Your task to perform on an android device: open app "PUBG MOBILE" Image 0: 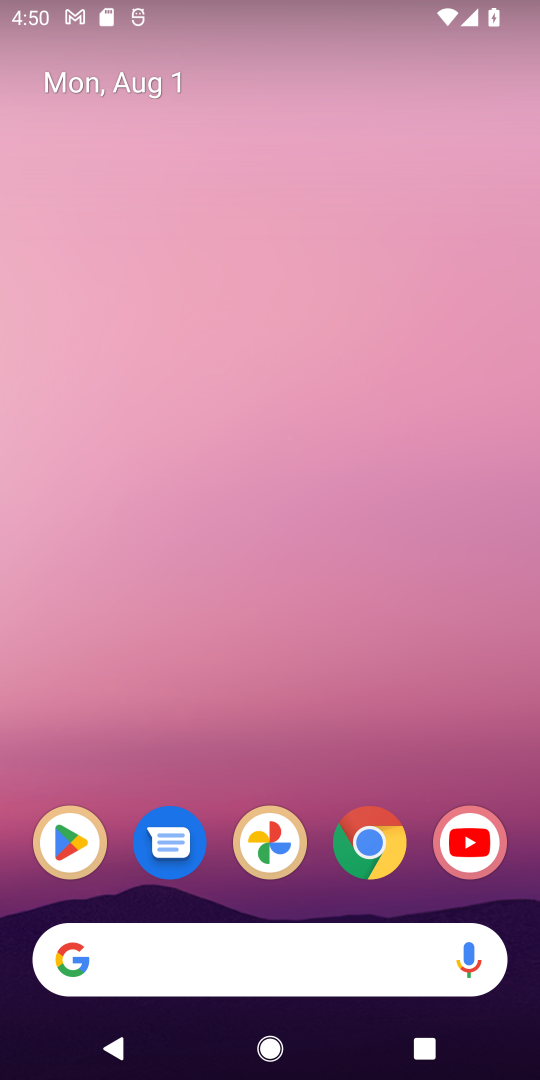
Step 0: click (308, 292)
Your task to perform on an android device: open app "PUBG MOBILE" Image 1: 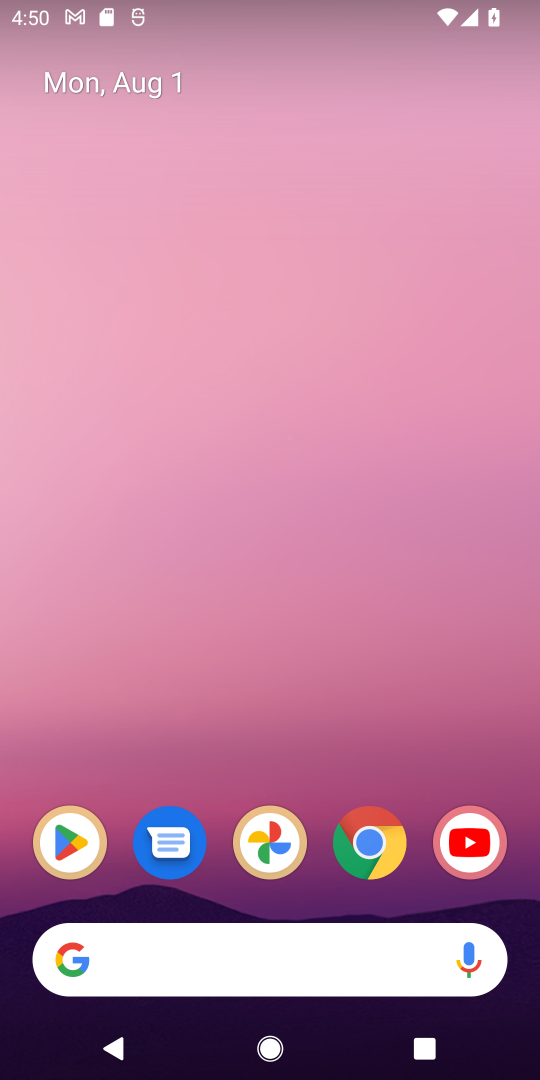
Step 1: drag from (306, 437) to (288, 306)
Your task to perform on an android device: open app "PUBG MOBILE" Image 2: 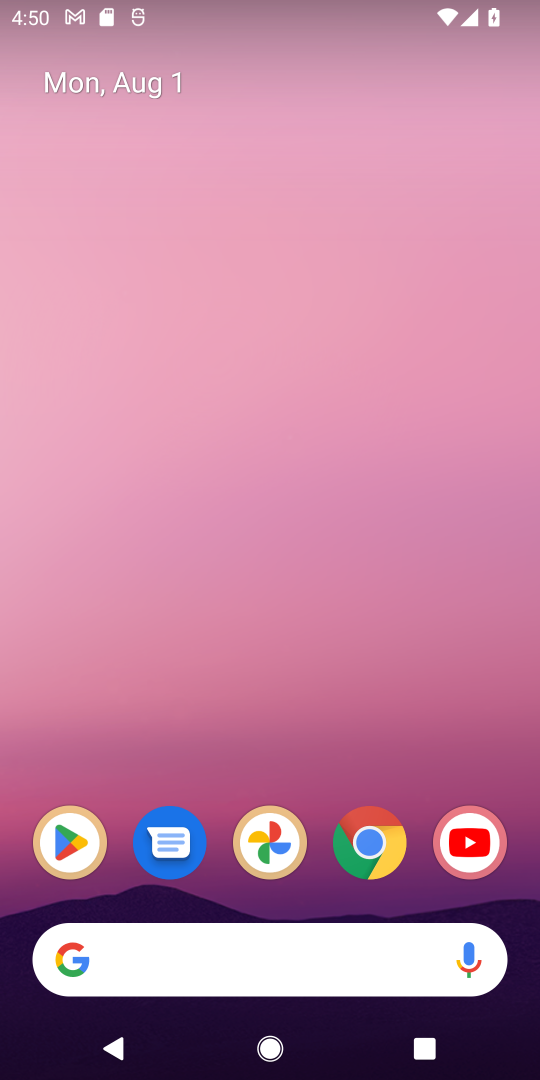
Step 2: drag from (340, 140) to (259, 293)
Your task to perform on an android device: open app "PUBG MOBILE" Image 3: 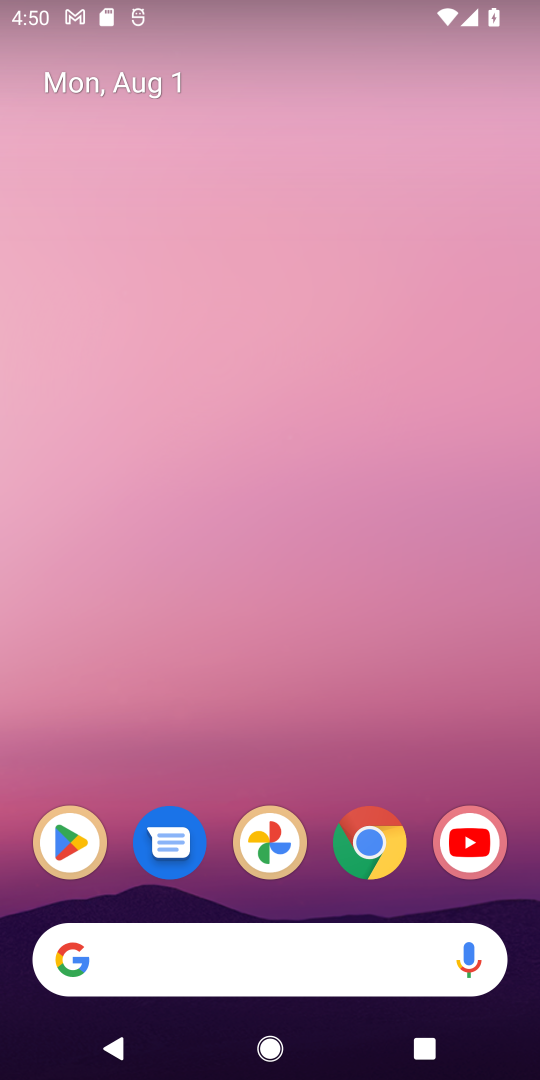
Step 3: click (322, 345)
Your task to perform on an android device: open app "PUBG MOBILE" Image 4: 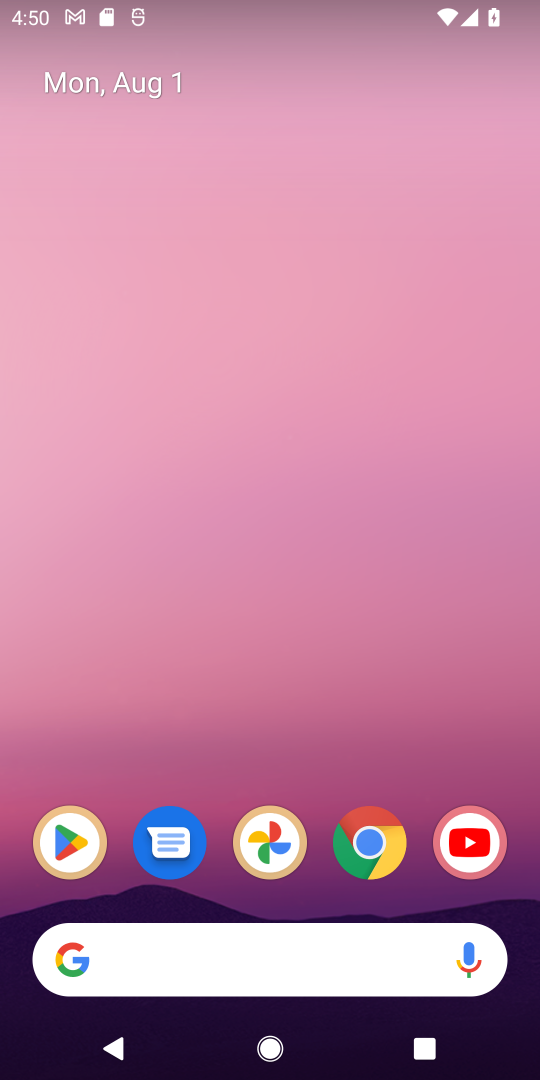
Step 4: drag from (220, 386) to (194, 220)
Your task to perform on an android device: open app "PUBG MOBILE" Image 5: 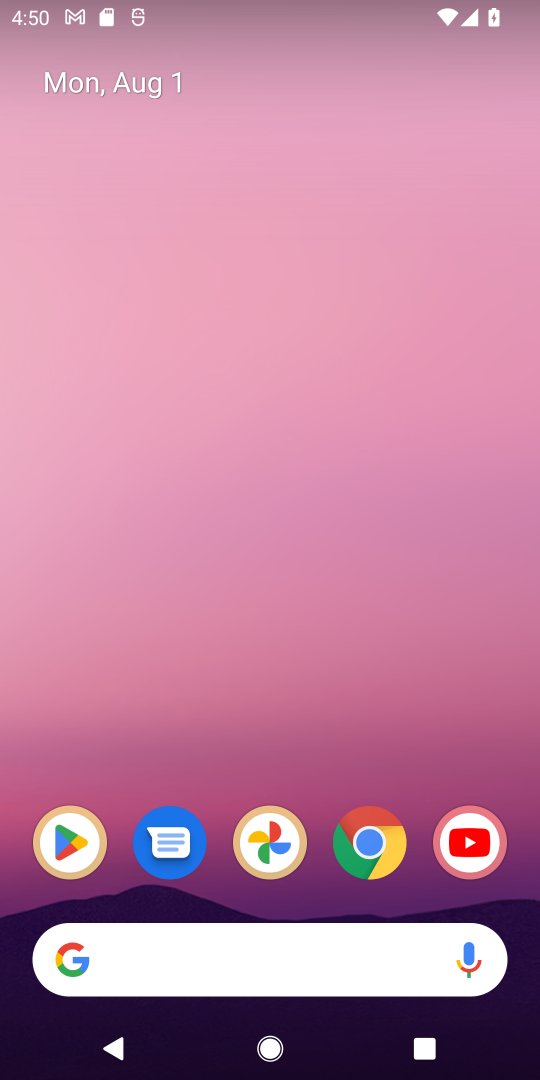
Step 5: drag from (296, 738) to (276, 485)
Your task to perform on an android device: open app "PUBG MOBILE" Image 6: 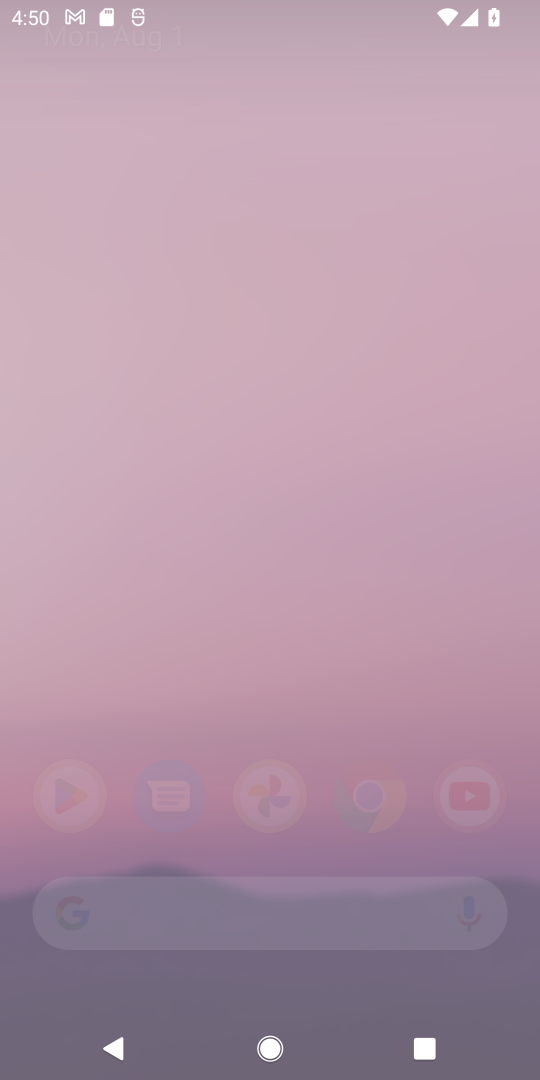
Step 6: drag from (252, 275) to (232, 163)
Your task to perform on an android device: open app "PUBG MOBILE" Image 7: 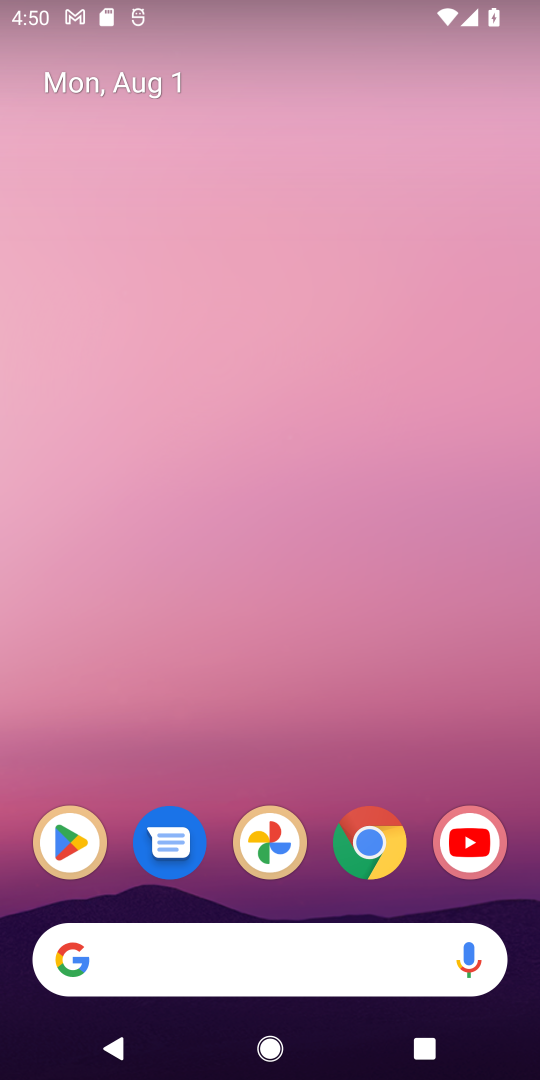
Step 7: drag from (238, 423) to (238, 276)
Your task to perform on an android device: open app "PUBG MOBILE" Image 8: 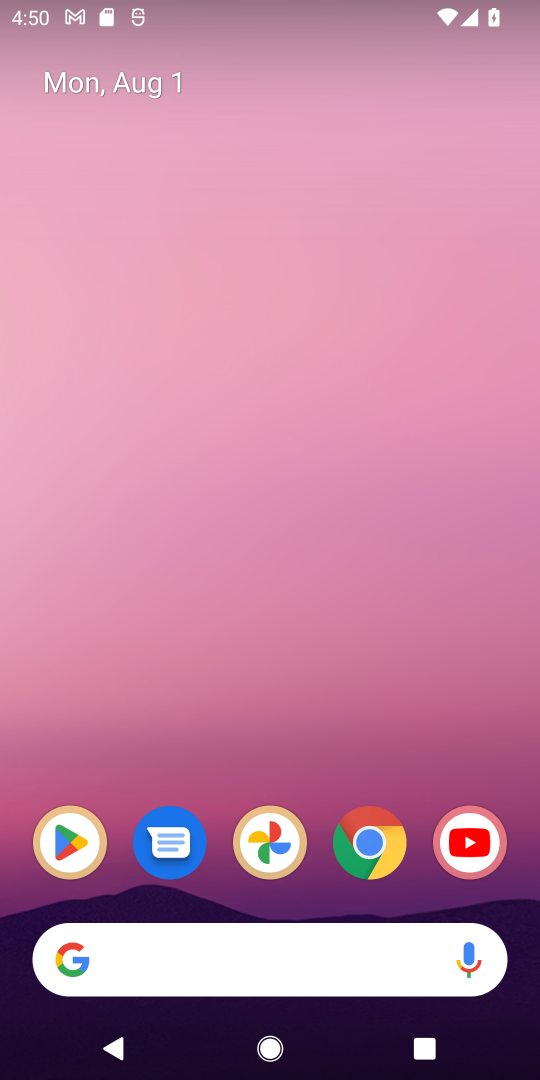
Step 8: drag from (359, 720) to (359, 141)
Your task to perform on an android device: open app "PUBG MOBILE" Image 9: 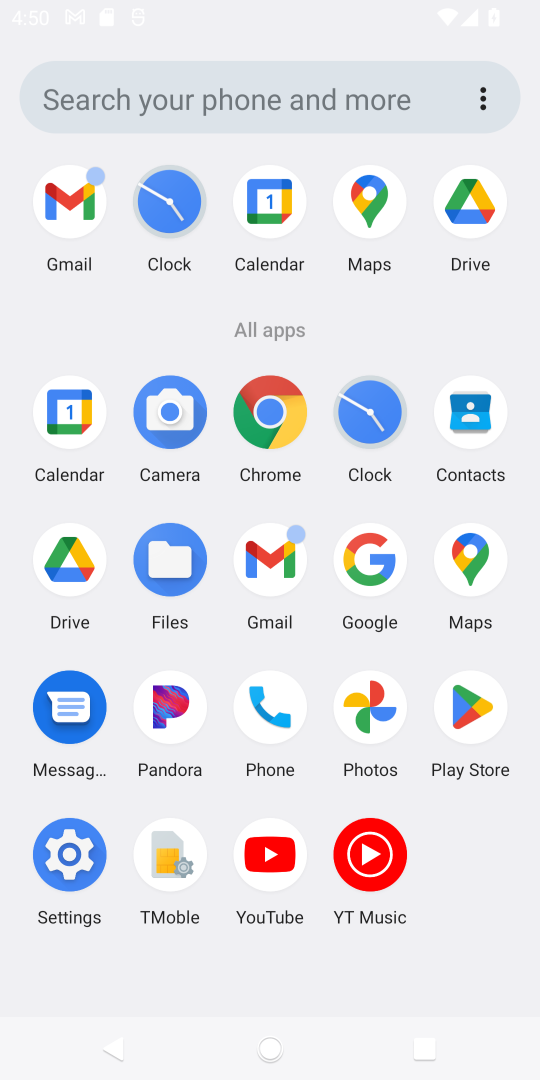
Step 9: click (299, 202)
Your task to perform on an android device: open app "PUBG MOBILE" Image 10: 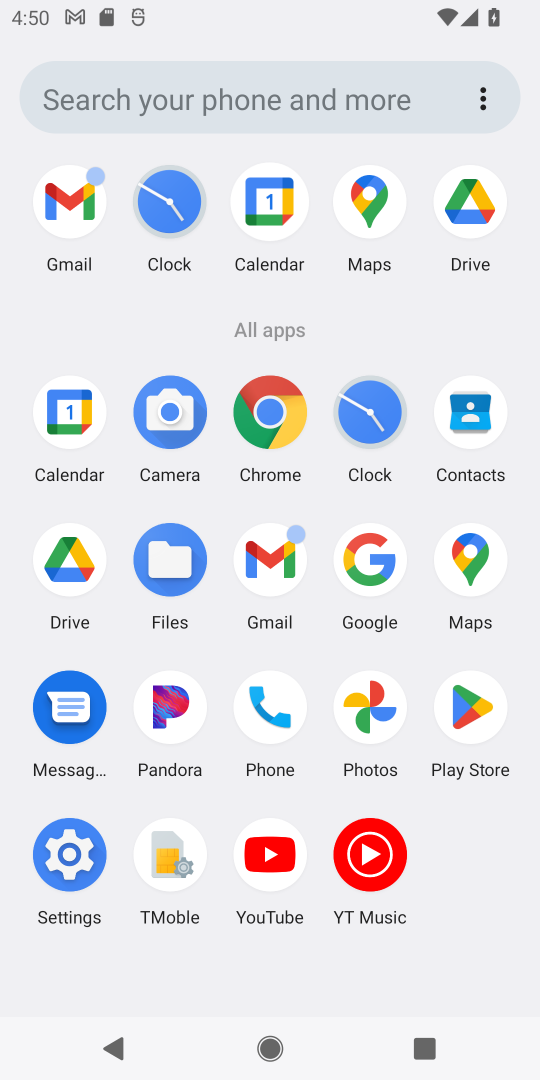
Step 10: drag from (194, 436) to (186, 326)
Your task to perform on an android device: open app "PUBG MOBILE" Image 11: 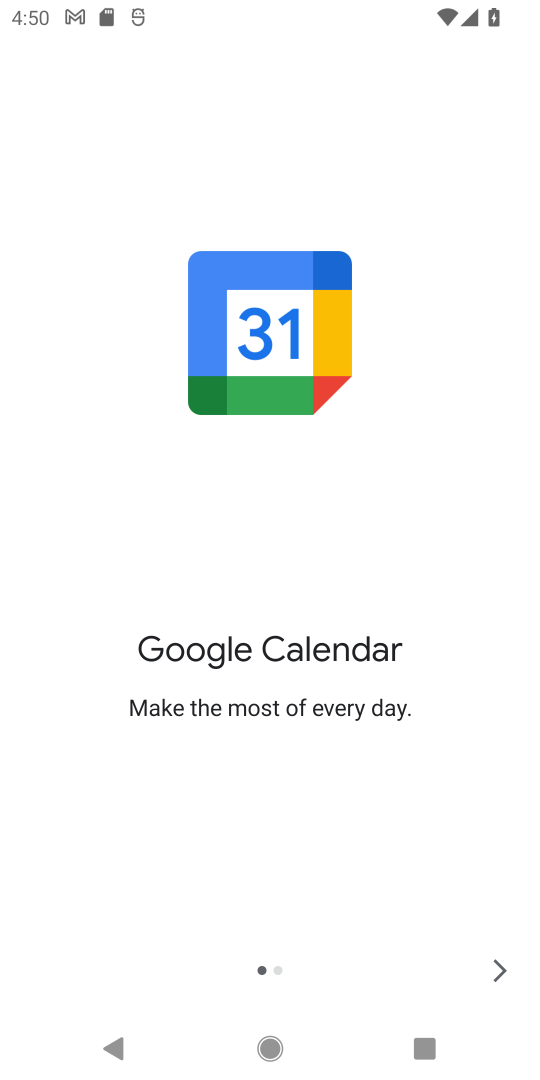
Step 11: click (485, 967)
Your task to perform on an android device: open app "PUBG MOBILE" Image 12: 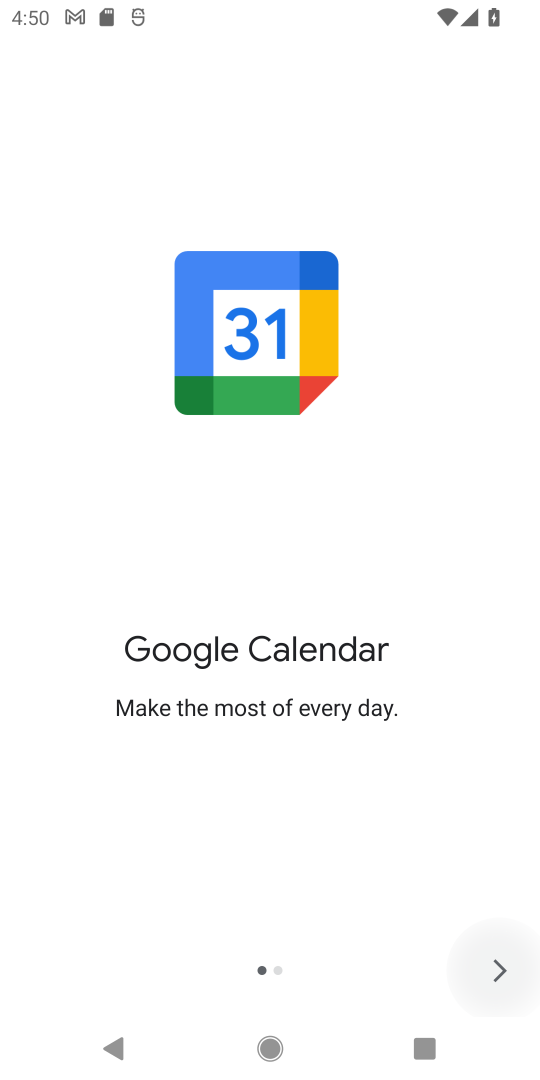
Step 12: click (498, 960)
Your task to perform on an android device: open app "PUBG MOBILE" Image 13: 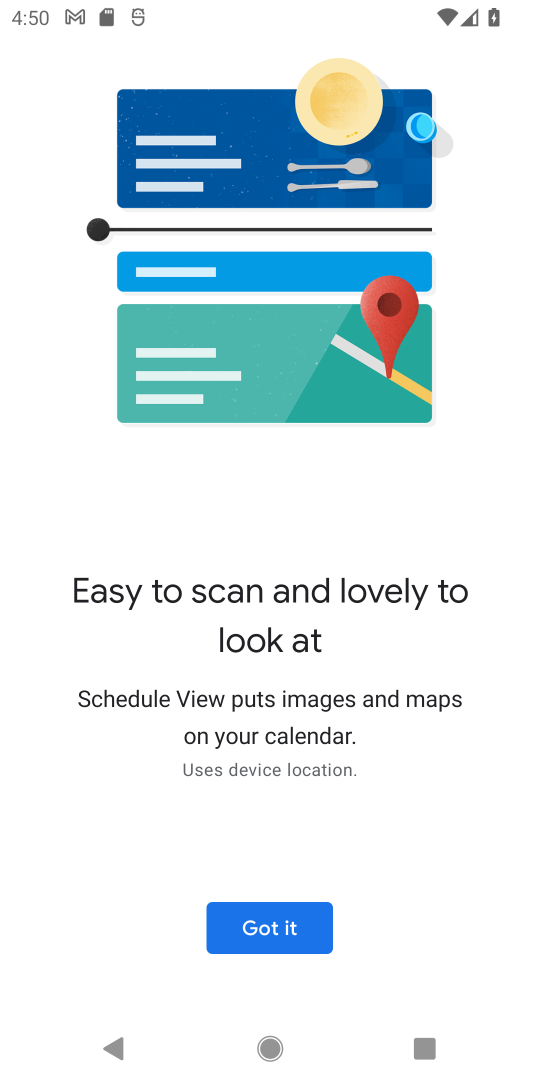
Step 13: press back button
Your task to perform on an android device: open app "PUBG MOBILE" Image 14: 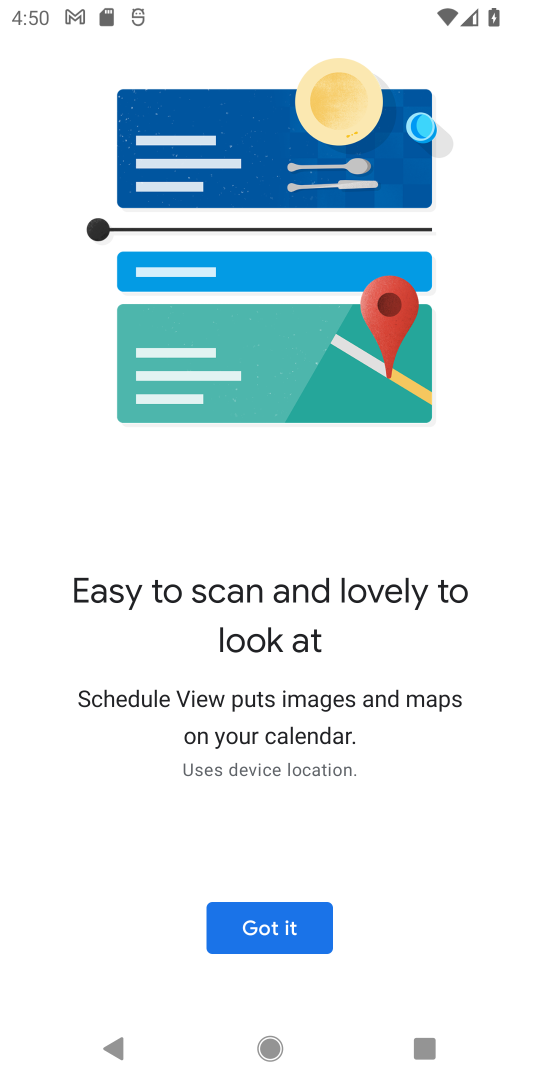
Step 14: press back button
Your task to perform on an android device: open app "PUBG MOBILE" Image 15: 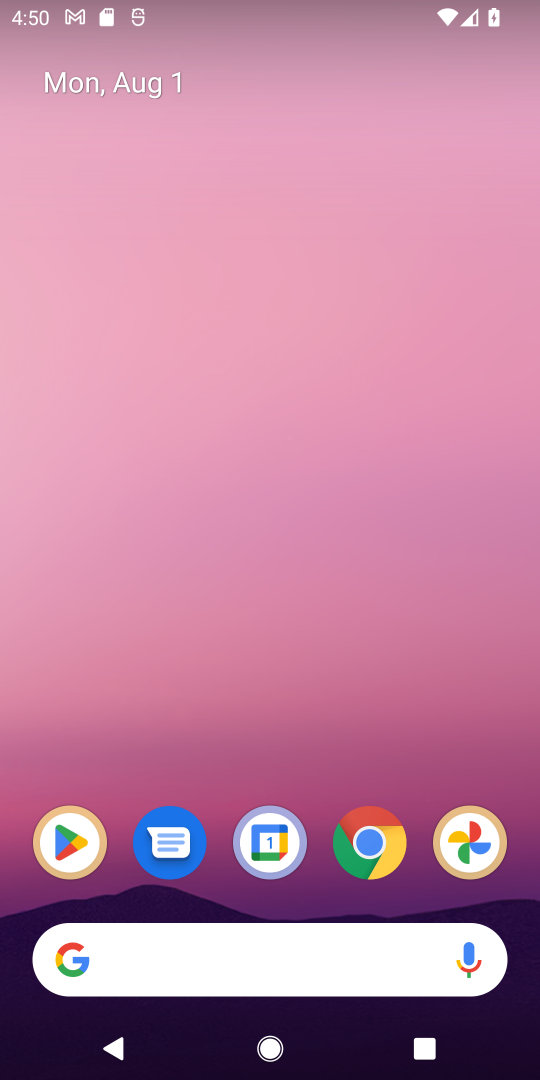
Step 15: drag from (336, 1029) to (242, 521)
Your task to perform on an android device: open app "PUBG MOBILE" Image 16: 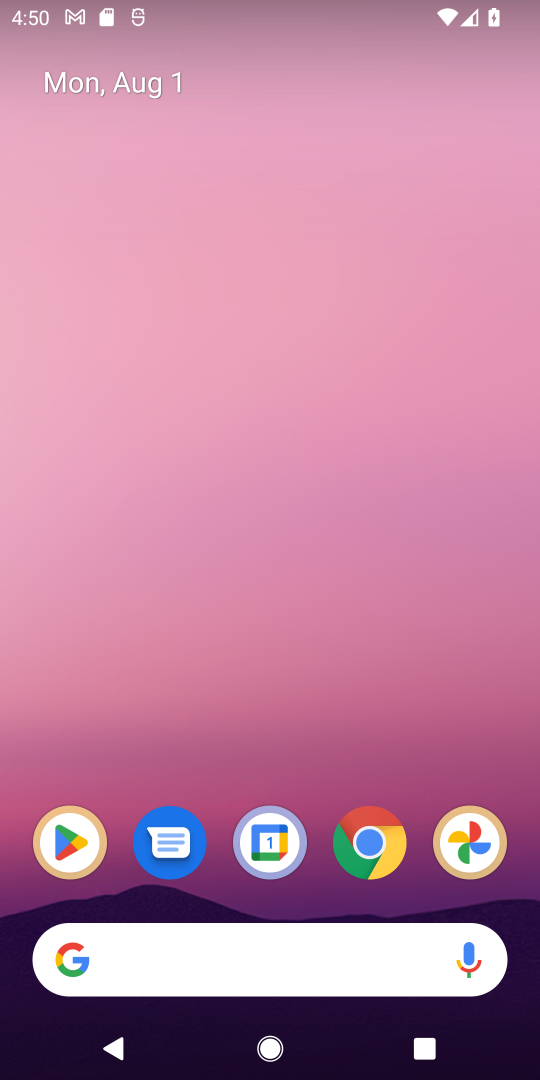
Step 16: drag from (259, 631) to (203, 255)
Your task to perform on an android device: open app "PUBG MOBILE" Image 17: 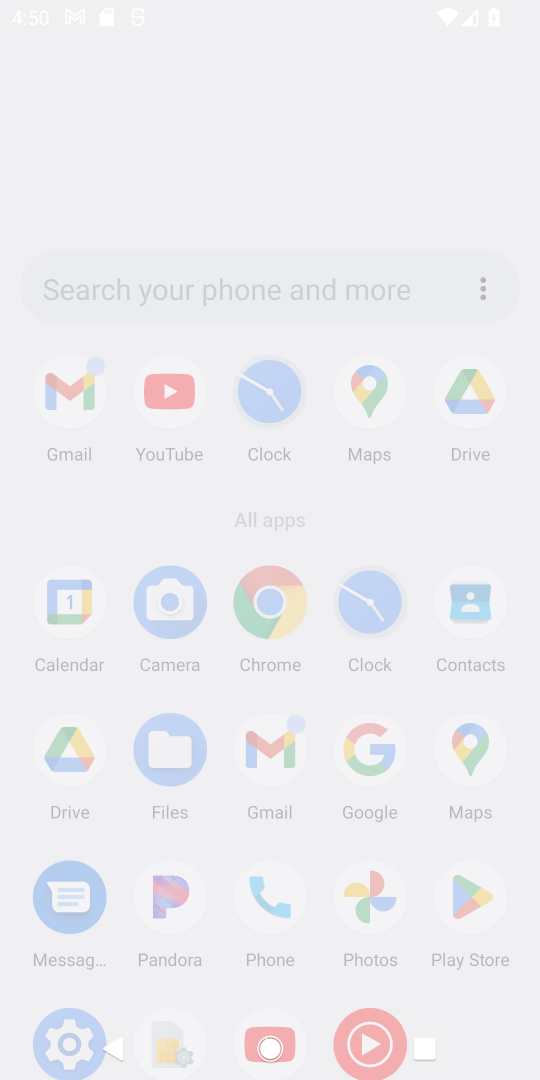
Step 17: drag from (347, 581) to (283, 264)
Your task to perform on an android device: open app "PUBG MOBILE" Image 18: 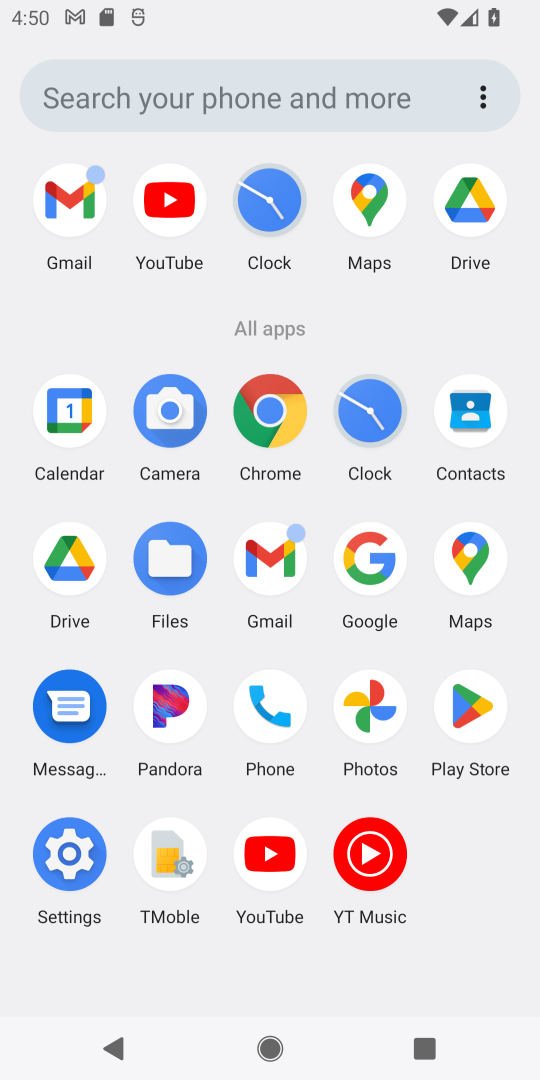
Step 18: drag from (285, 723) to (285, 266)
Your task to perform on an android device: open app "PUBG MOBILE" Image 19: 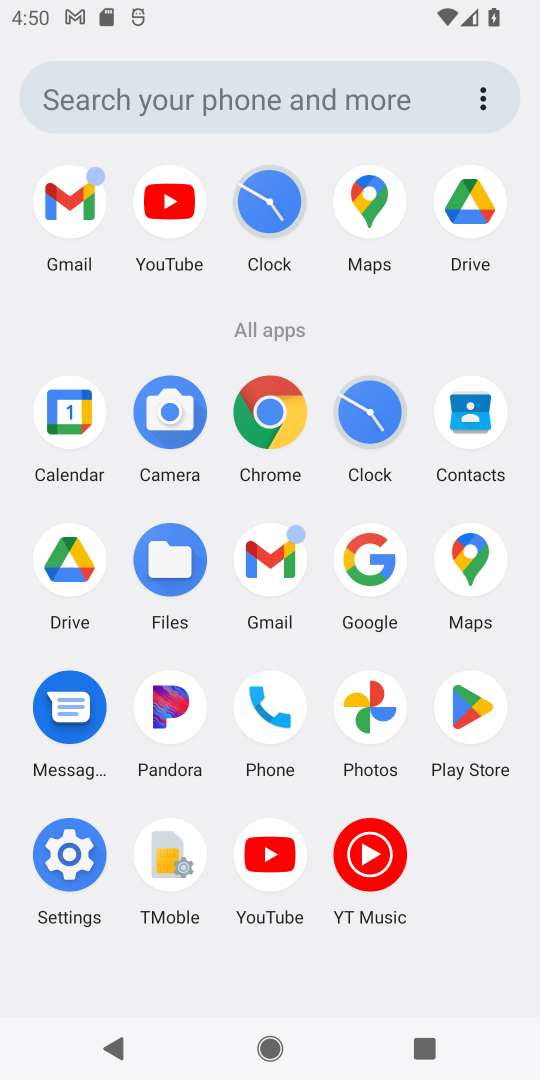
Step 19: click (462, 710)
Your task to perform on an android device: open app "PUBG MOBILE" Image 20: 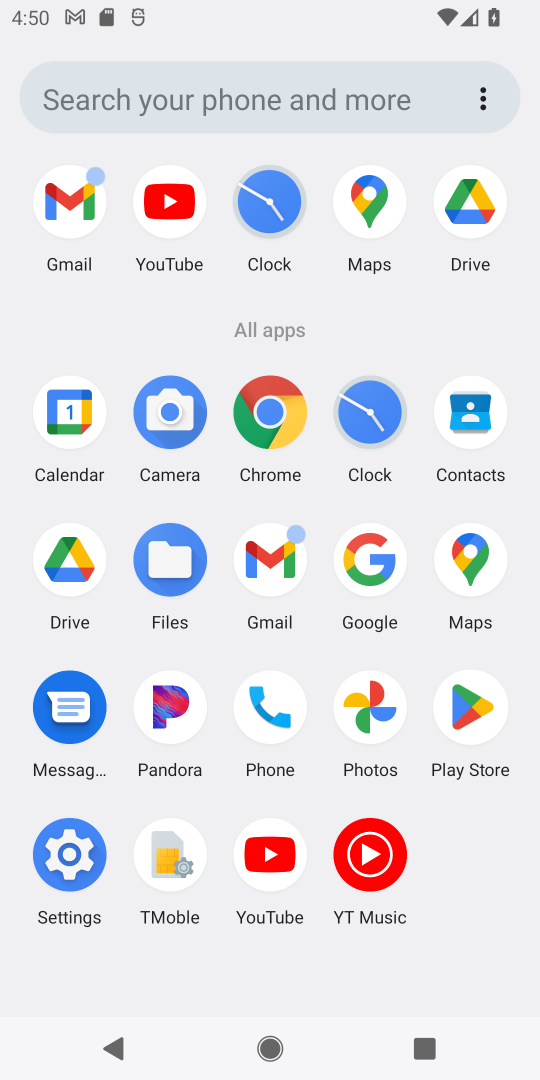
Step 20: click (464, 712)
Your task to perform on an android device: open app "PUBG MOBILE" Image 21: 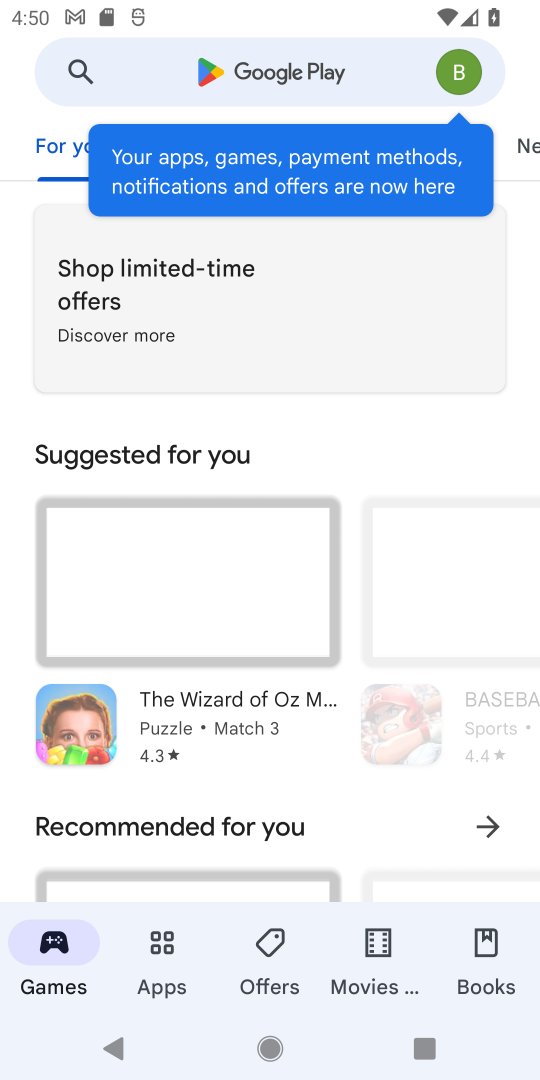
Step 21: click (249, 68)
Your task to perform on an android device: open app "PUBG MOBILE" Image 22: 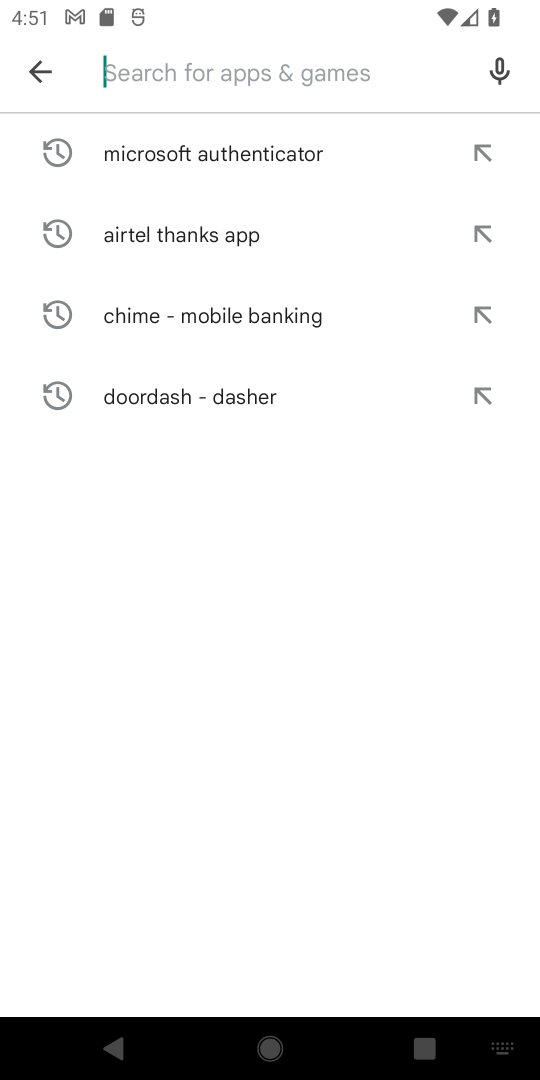
Step 22: type "pubg Mobile"
Your task to perform on an android device: open app "PUBG MOBILE" Image 23: 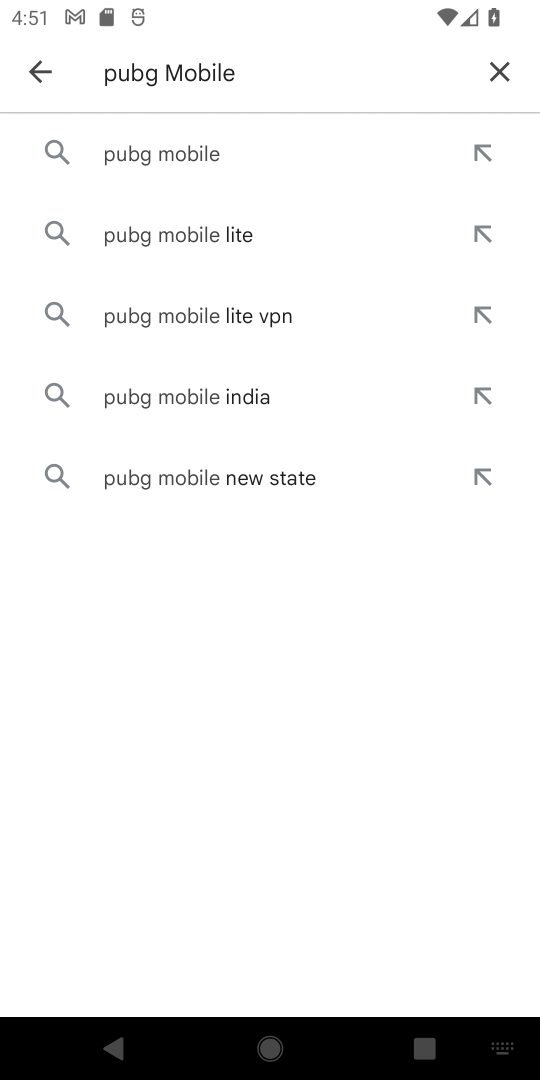
Step 23: click (212, 163)
Your task to perform on an android device: open app "PUBG MOBILE" Image 24: 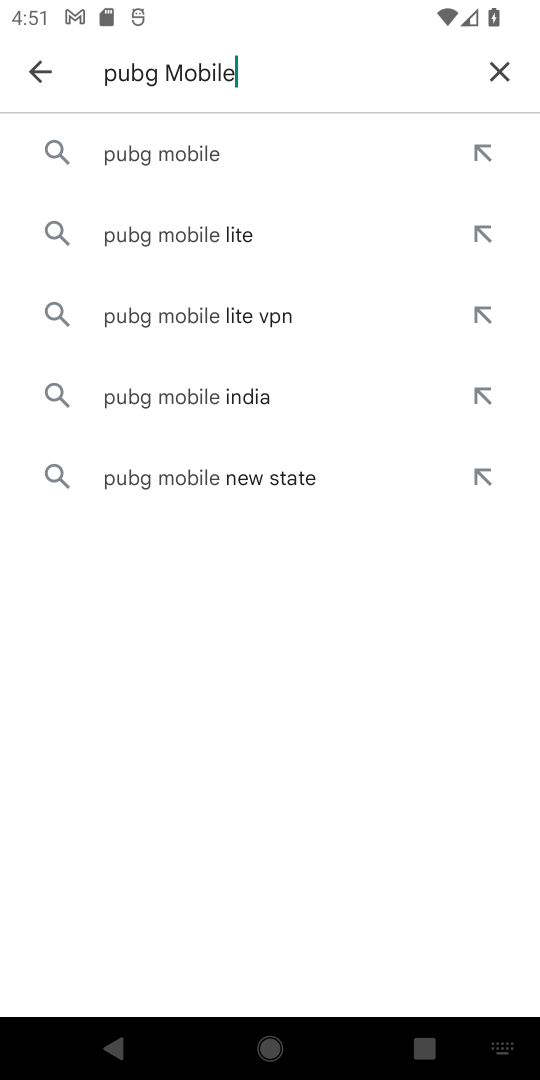
Step 24: click (211, 159)
Your task to perform on an android device: open app "PUBG MOBILE" Image 25: 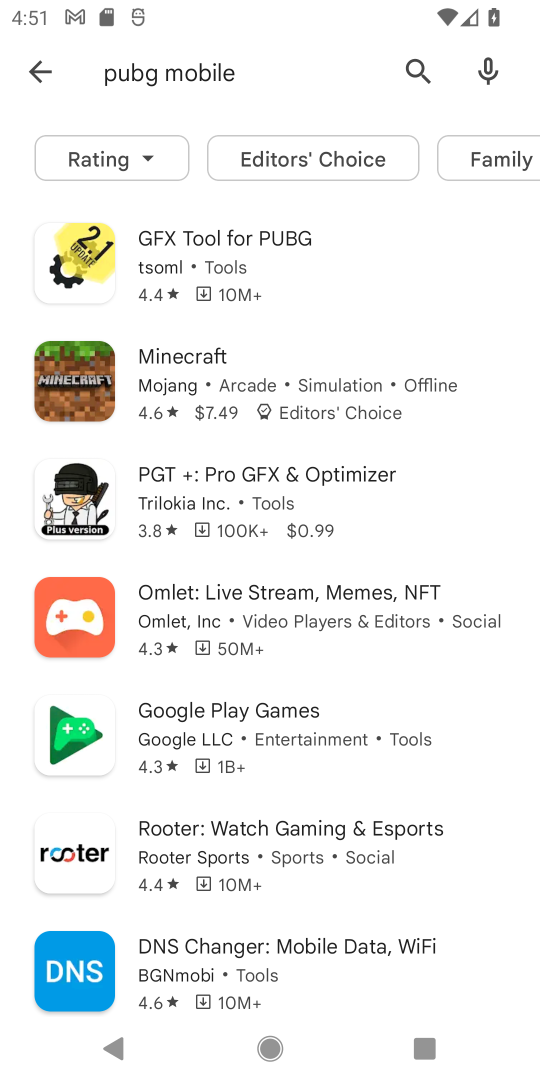
Step 25: task complete